Your task to perform on an android device: toggle priority inbox in the gmail app Image 0: 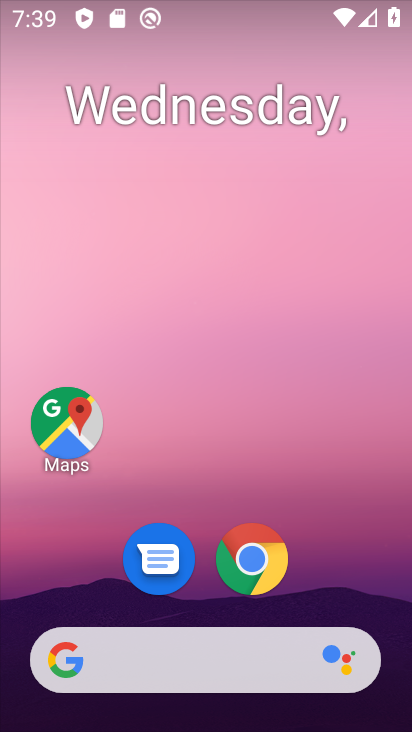
Step 0: drag from (208, 594) to (256, 79)
Your task to perform on an android device: toggle priority inbox in the gmail app Image 1: 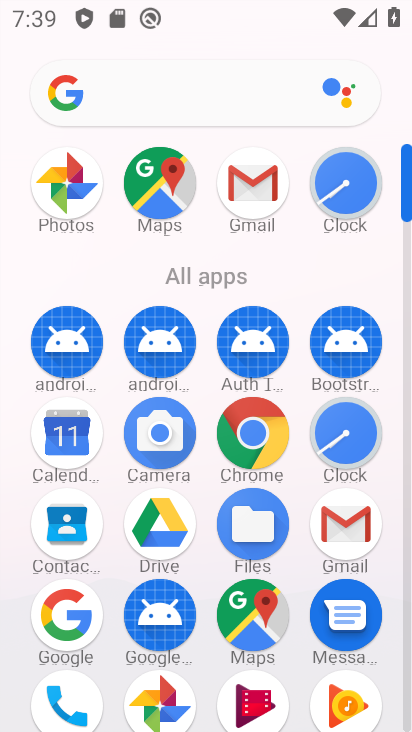
Step 1: click (263, 166)
Your task to perform on an android device: toggle priority inbox in the gmail app Image 2: 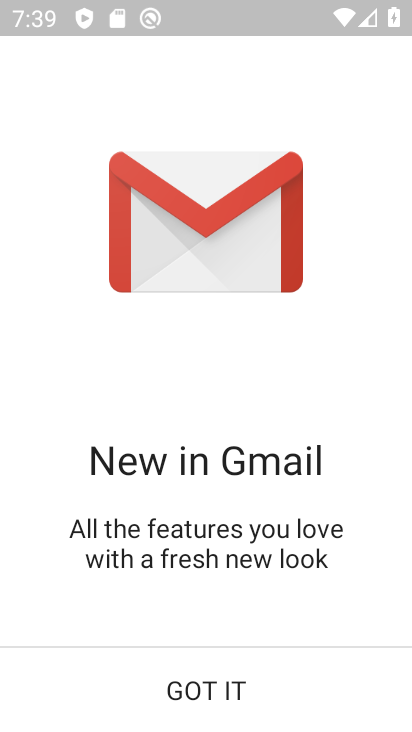
Step 2: click (196, 691)
Your task to perform on an android device: toggle priority inbox in the gmail app Image 3: 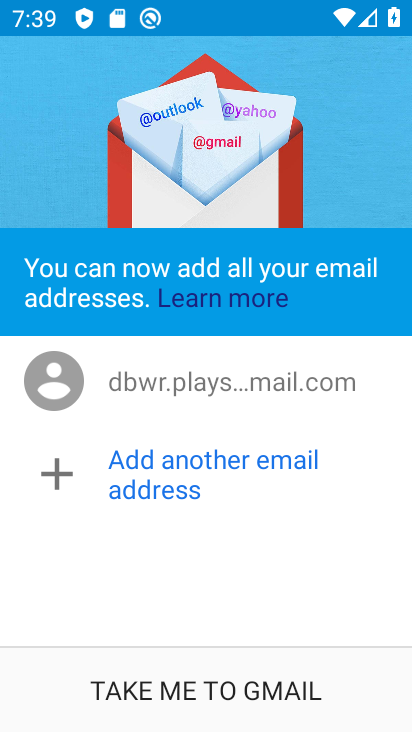
Step 3: click (221, 703)
Your task to perform on an android device: toggle priority inbox in the gmail app Image 4: 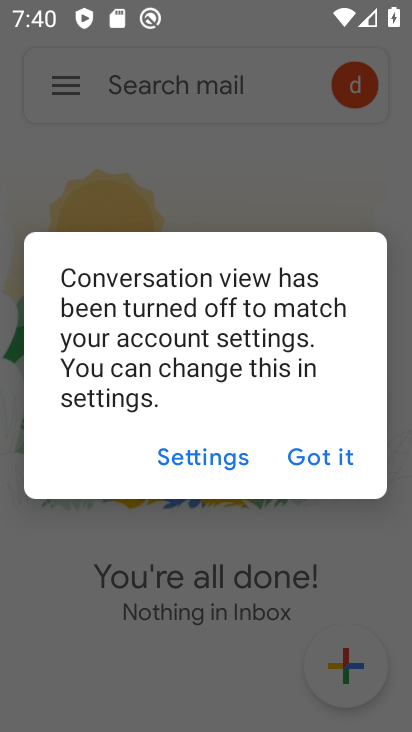
Step 4: click (310, 458)
Your task to perform on an android device: toggle priority inbox in the gmail app Image 5: 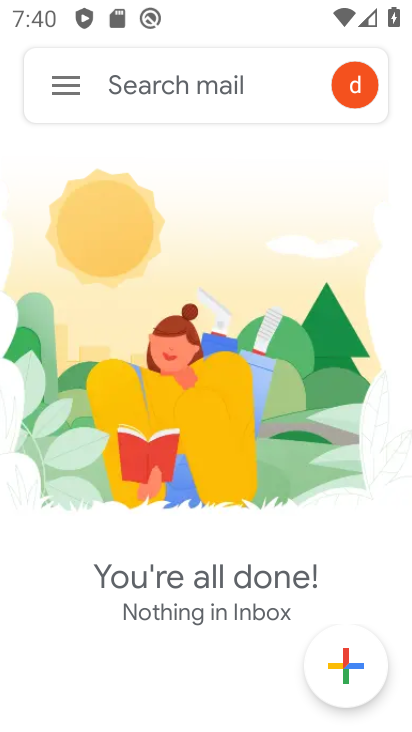
Step 5: click (67, 75)
Your task to perform on an android device: toggle priority inbox in the gmail app Image 6: 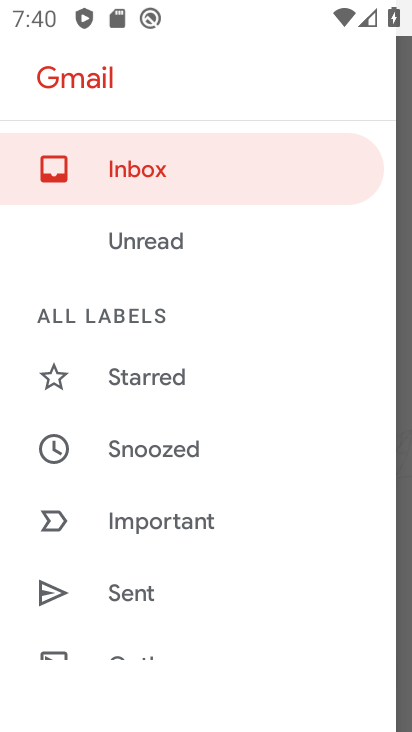
Step 6: drag from (150, 631) to (299, 113)
Your task to perform on an android device: toggle priority inbox in the gmail app Image 7: 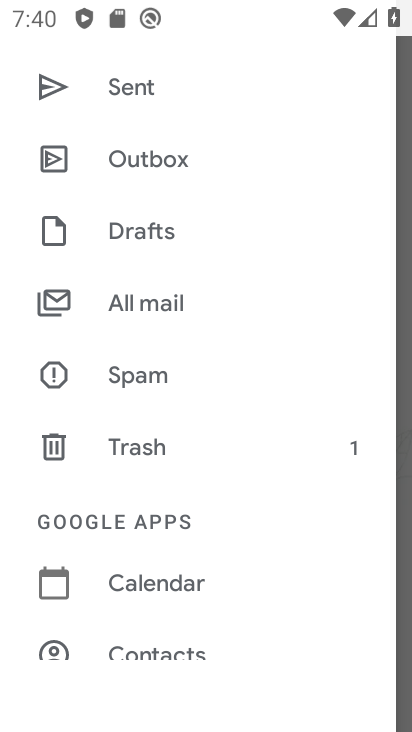
Step 7: drag from (204, 613) to (308, 46)
Your task to perform on an android device: toggle priority inbox in the gmail app Image 8: 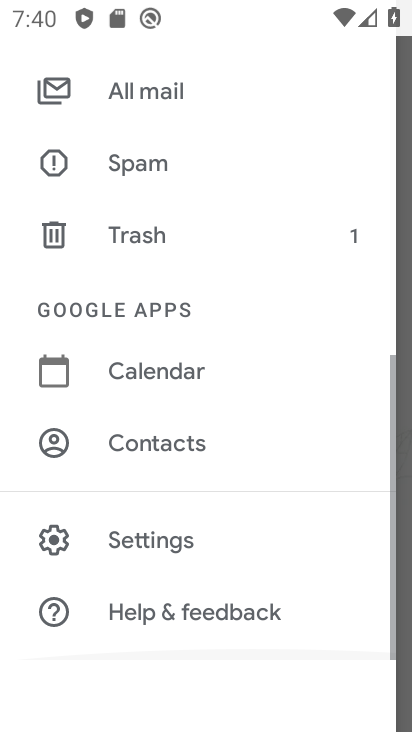
Step 8: click (201, 533)
Your task to perform on an android device: toggle priority inbox in the gmail app Image 9: 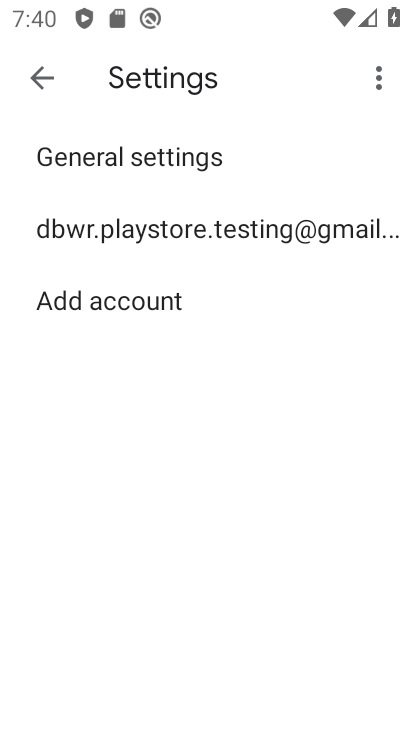
Step 9: click (238, 217)
Your task to perform on an android device: toggle priority inbox in the gmail app Image 10: 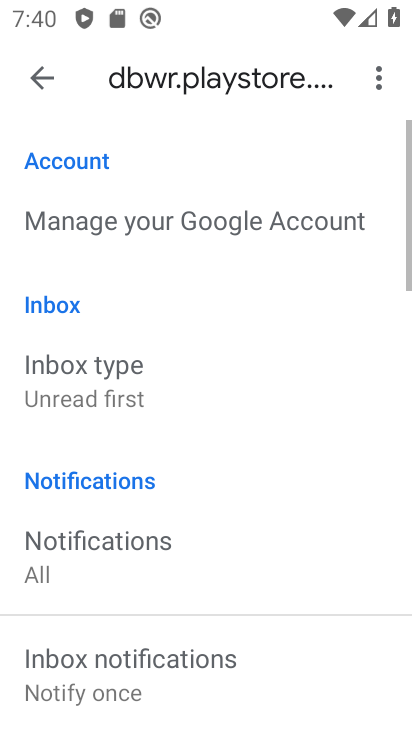
Step 10: click (151, 395)
Your task to perform on an android device: toggle priority inbox in the gmail app Image 11: 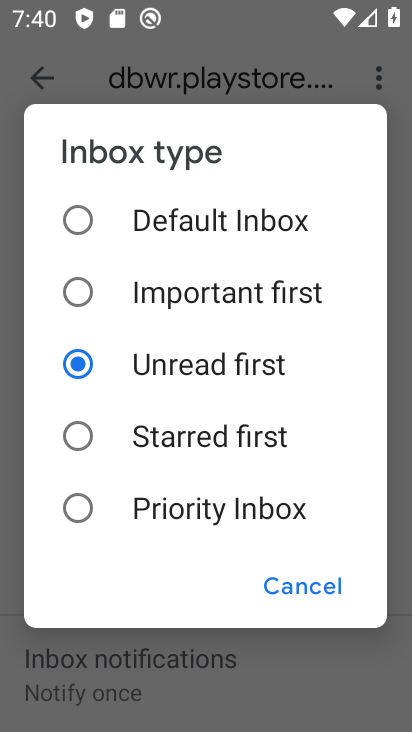
Step 11: click (74, 522)
Your task to perform on an android device: toggle priority inbox in the gmail app Image 12: 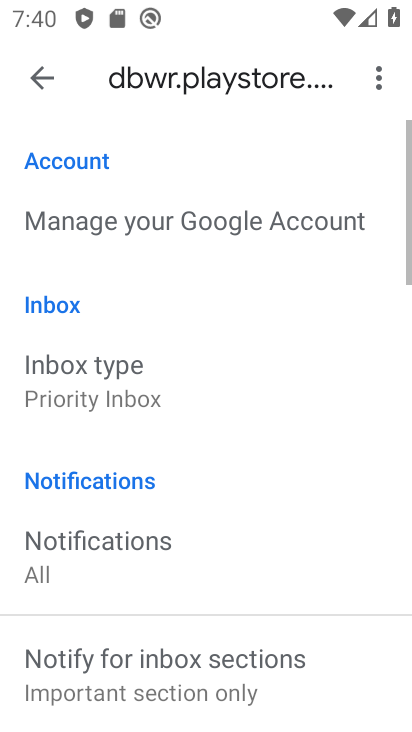
Step 12: task complete